Your task to perform on an android device: Go to calendar. Show me events next week Image 0: 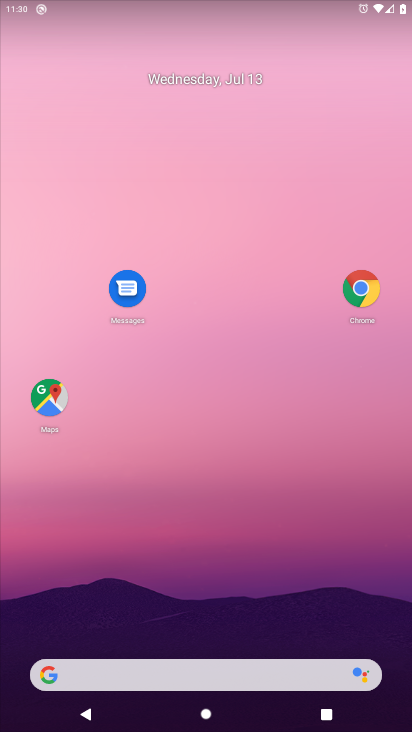
Step 0: drag from (30, 708) to (367, 41)
Your task to perform on an android device: Go to calendar. Show me events next week Image 1: 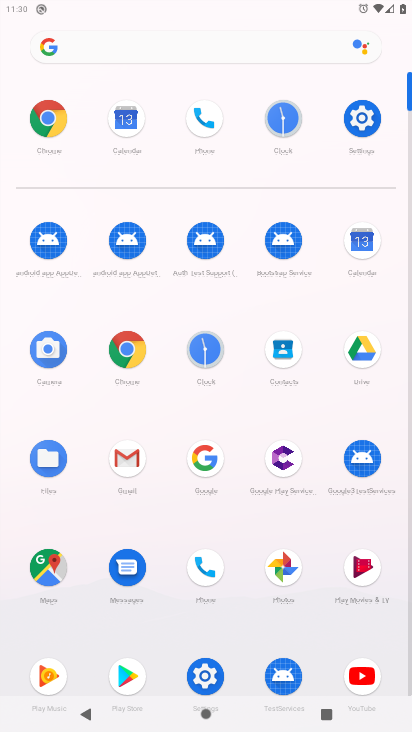
Step 1: click (356, 247)
Your task to perform on an android device: Go to calendar. Show me events next week Image 2: 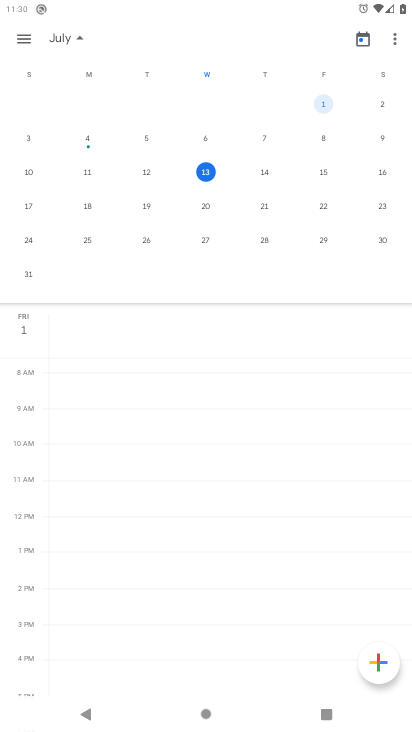
Step 2: task complete